Your task to perform on an android device: visit the assistant section in the google photos Image 0: 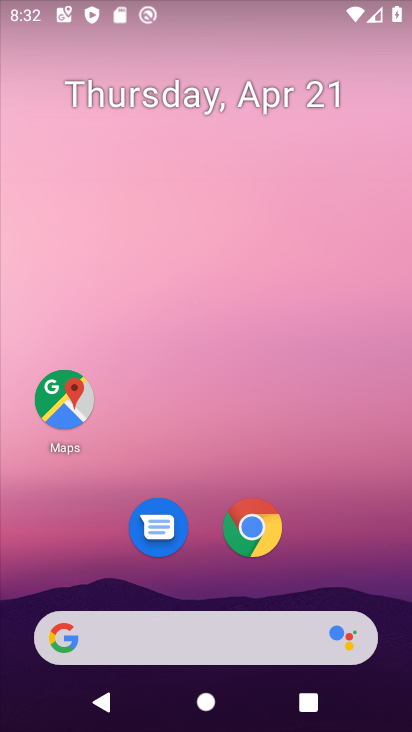
Step 0: drag from (268, 362) to (310, 137)
Your task to perform on an android device: visit the assistant section in the google photos Image 1: 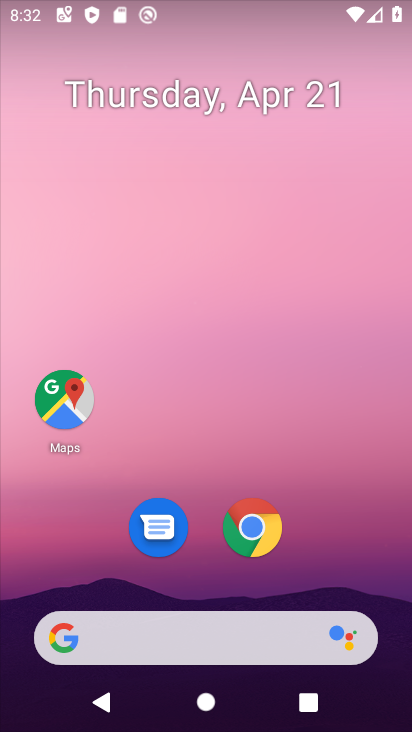
Step 1: drag from (321, 607) to (366, 55)
Your task to perform on an android device: visit the assistant section in the google photos Image 2: 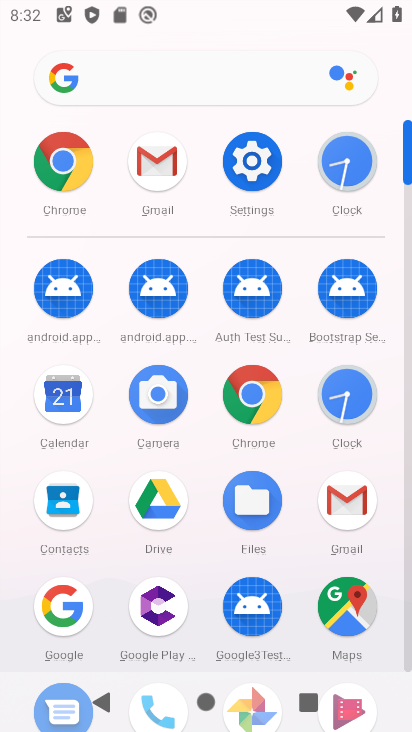
Step 2: drag from (279, 438) to (350, 91)
Your task to perform on an android device: visit the assistant section in the google photos Image 3: 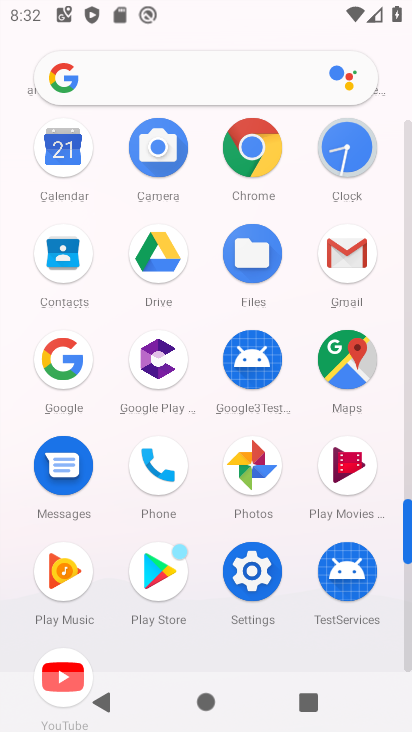
Step 3: click (251, 488)
Your task to perform on an android device: visit the assistant section in the google photos Image 4: 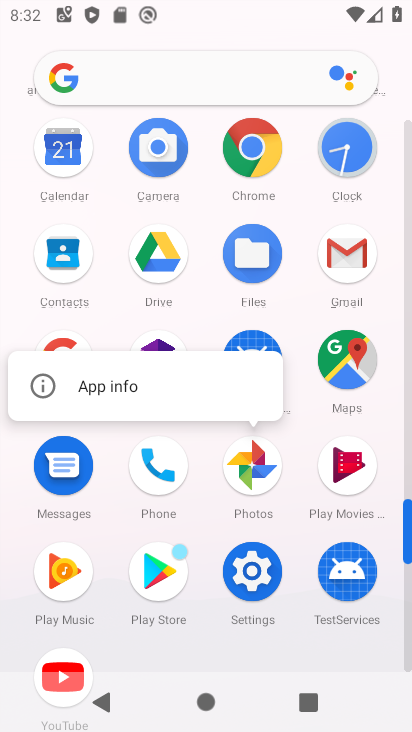
Step 4: click (250, 487)
Your task to perform on an android device: visit the assistant section in the google photos Image 5: 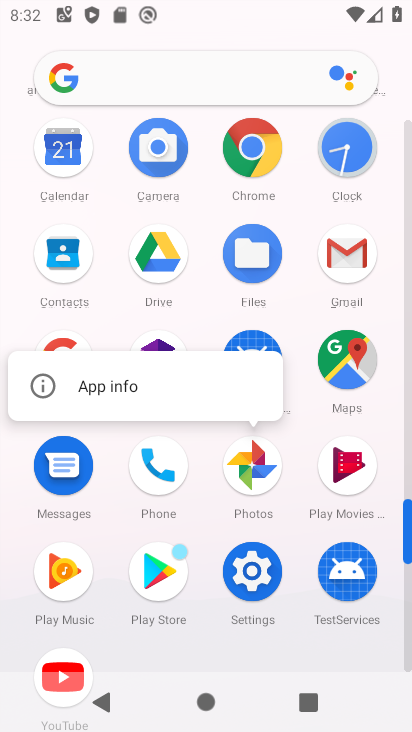
Step 5: click (272, 466)
Your task to perform on an android device: visit the assistant section in the google photos Image 6: 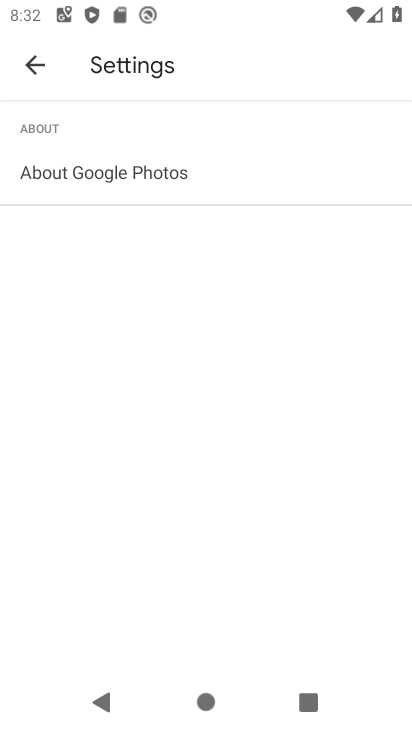
Step 6: click (272, 465)
Your task to perform on an android device: visit the assistant section in the google photos Image 7: 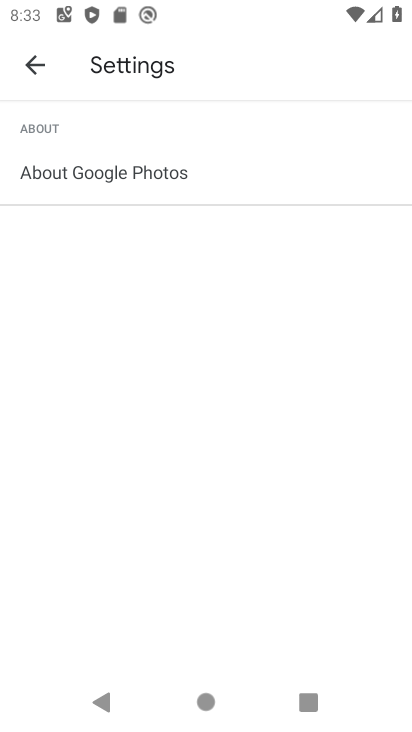
Step 7: click (39, 64)
Your task to perform on an android device: visit the assistant section in the google photos Image 8: 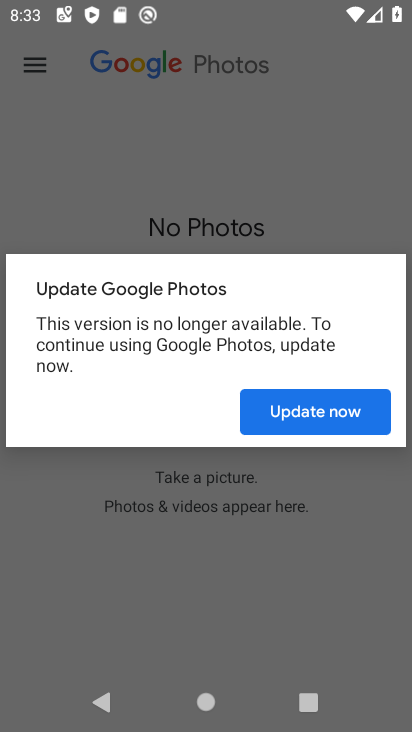
Step 8: task complete